Your task to perform on an android device: Go to Google maps Image 0: 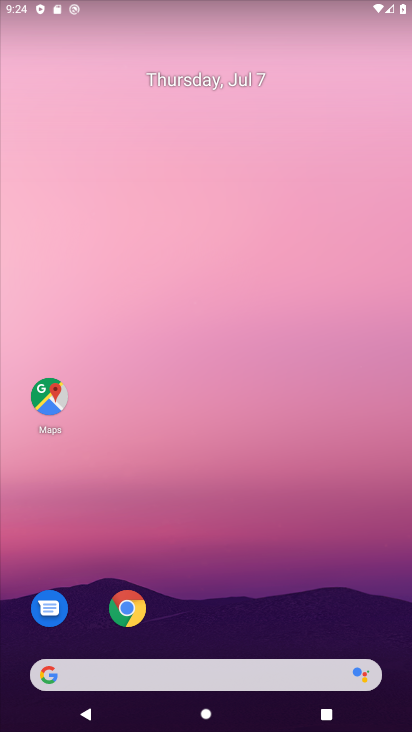
Step 0: drag from (181, 544) to (395, 190)
Your task to perform on an android device: Go to Google maps Image 1: 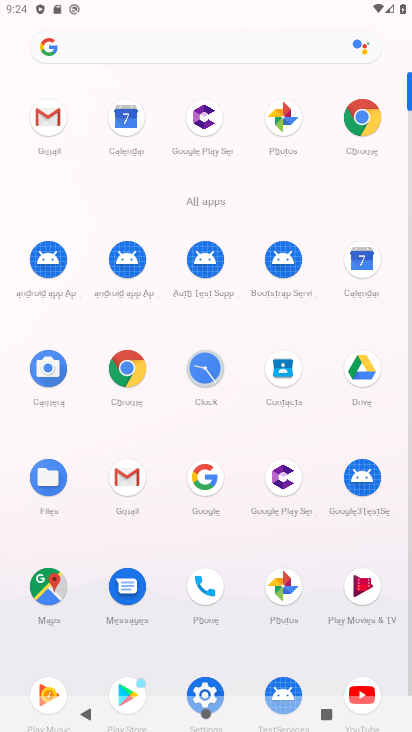
Step 1: click (37, 566)
Your task to perform on an android device: Go to Google maps Image 2: 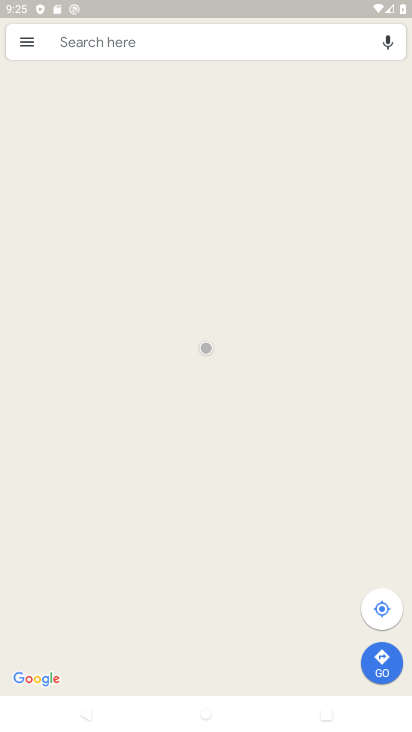
Step 2: task complete